Your task to perform on an android device: refresh tabs in the chrome app Image 0: 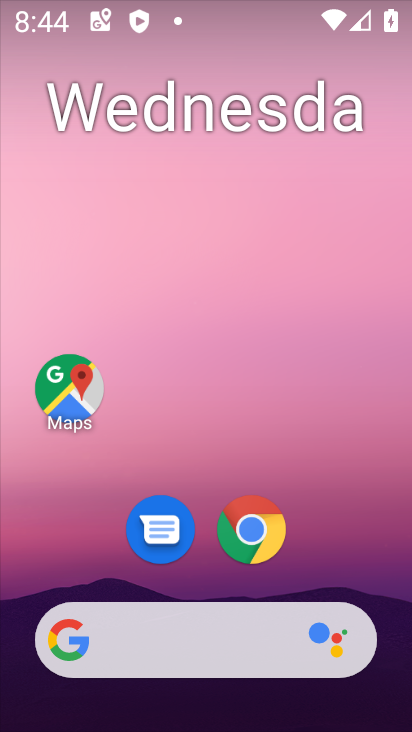
Step 0: click (252, 517)
Your task to perform on an android device: refresh tabs in the chrome app Image 1: 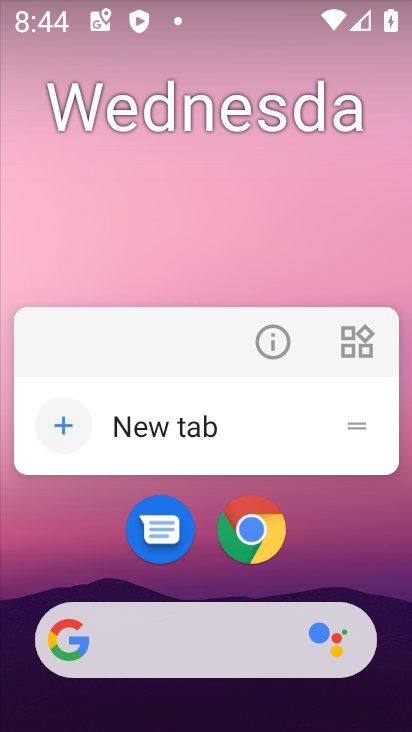
Step 1: click (234, 523)
Your task to perform on an android device: refresh tabs in the chrome app Image 2: 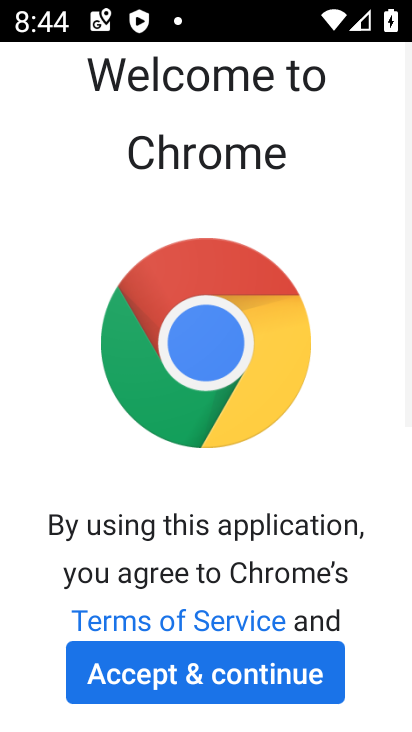
Step 2: click (227, 663)
Your task to perform on an android device: refresh tabs in the chrome app Image 3: 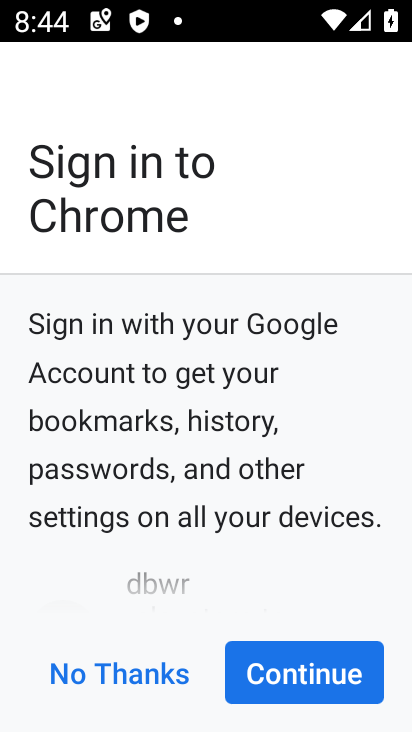
Step 3: click (264, 668)
Your task to perform on an android device: refresh tabs in the chrome app Image 4: 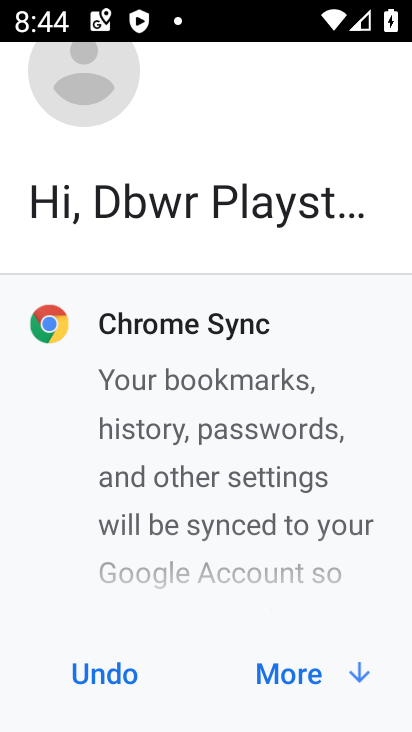
Step 4: click (299, 662)
Your task to perform on an android device: refresh tabs in the chrome app Image 5: 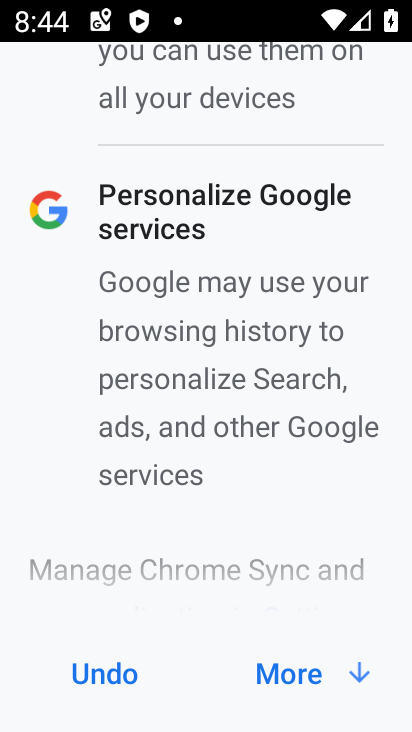
Step 5: click (299, 665)
Your task to perform on an android device: refresh tabs in the chrome app Image 6: 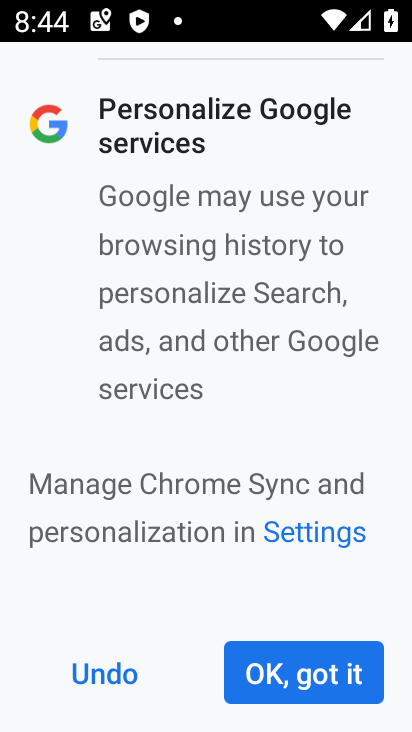
Step 6: click (290, 681)
Your task to perform on an android device: refresh tabs in the chrome app Image 7: 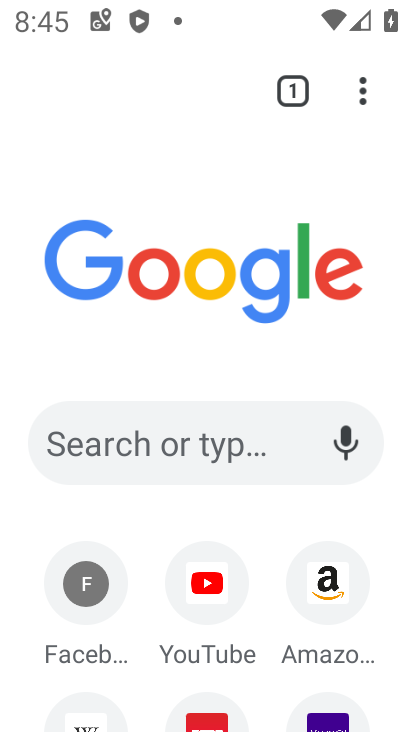
Step 7: click (367, 83)
Your task to perform on an android device: refresh tabs in the chrome app Image 8: 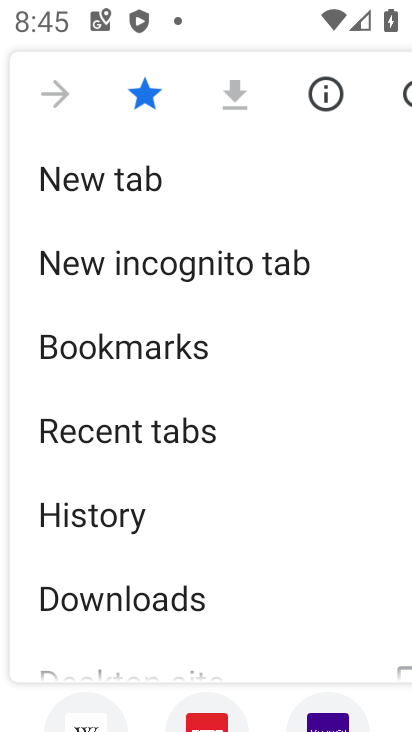
Step 8: click (397, 89)
Your task to perform on an android device: refresh tabs in the chrome app Image 9: 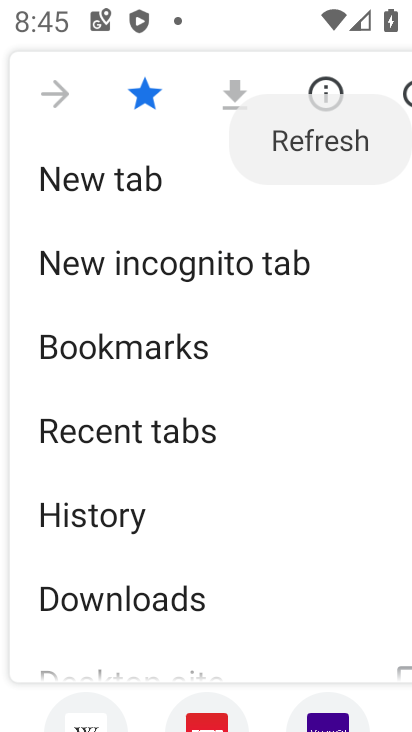
Step 9: task complete